Your task to perform on an android device: Show me the alarms in the clock app Image 0: 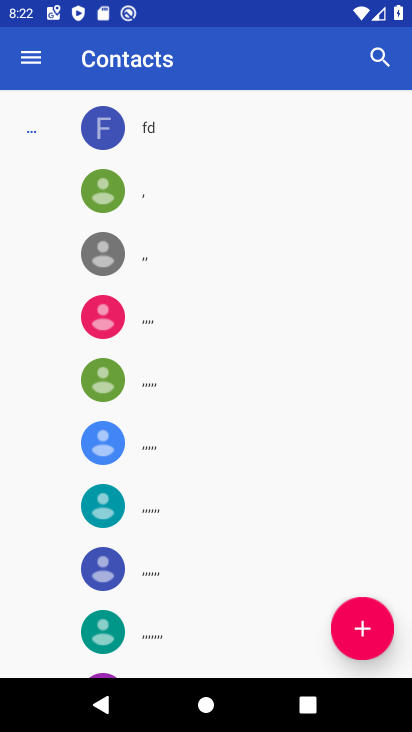
Step 0: press home button
Your task to perform on an android device: Show me the alarms in the clock app Image 1: 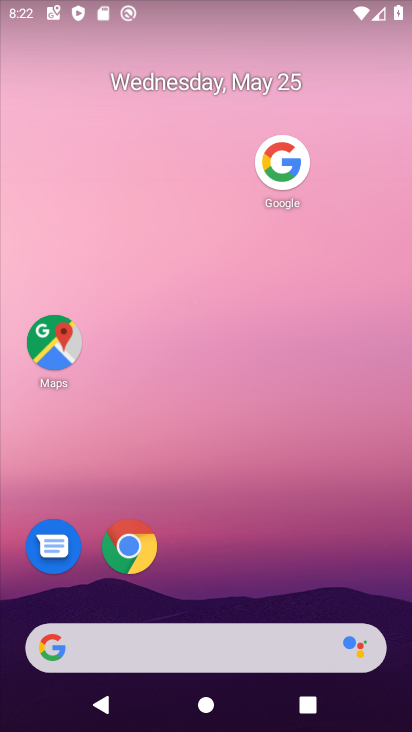
Step 1: drag from (179, 633) to (320, 138)
Your task to perform on an android device: Show me the alarms in the clock app Image 2: 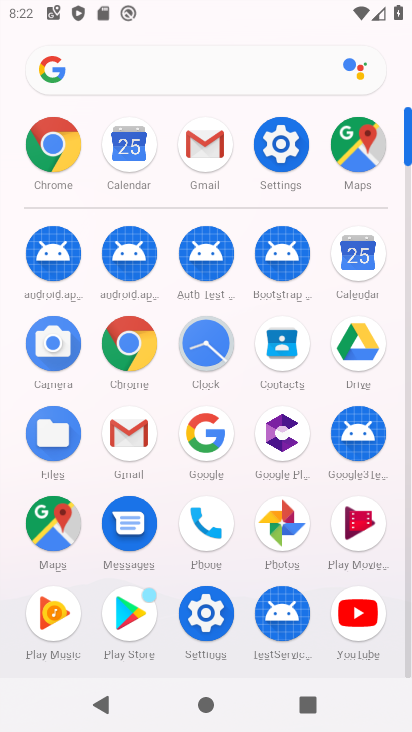
Step 2: click (200, 351)
Your task to perform on an android device: Show me the alarms in the clock app Image 3: 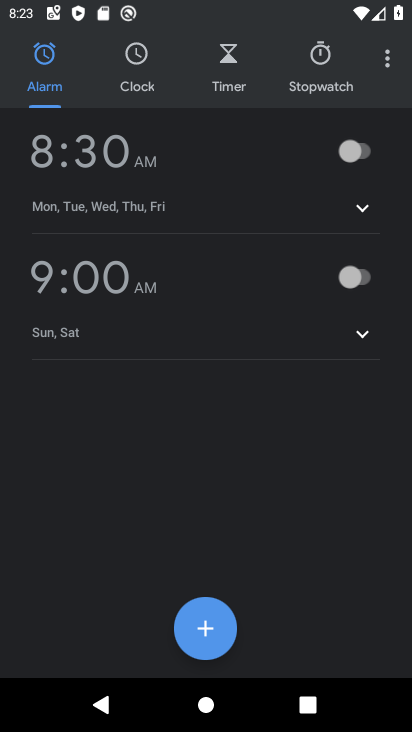
Step 3: task complete